Your task to perform on an android device: turn off improve location accuracy Image 0: 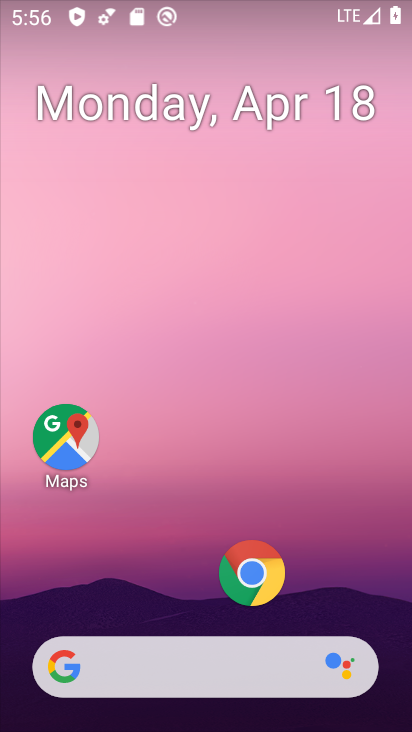
Step 0: drag from (179, 574) to (308, 105)
Your task to perform on an android device: turn off improve location accuracy Image 1: 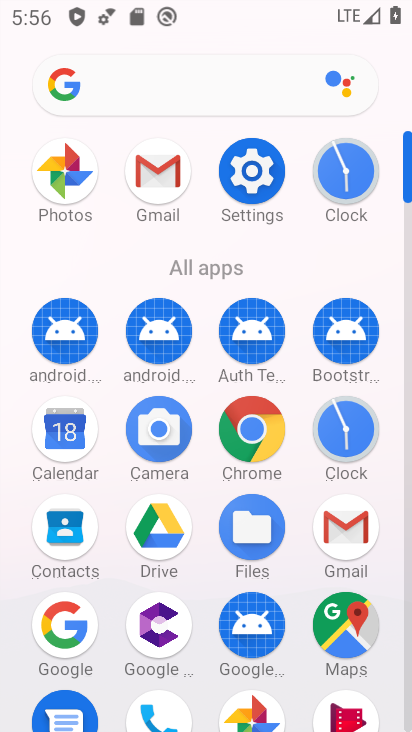
Step 1: click (247, 181)
Your task to perform on an android device: turn off improve location accuracy Image 2: 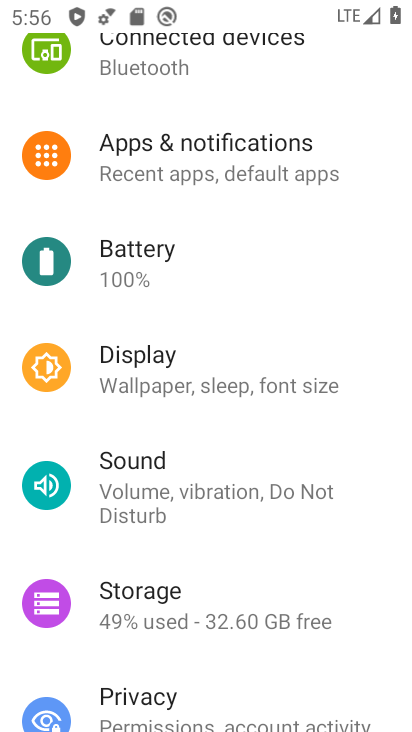
Step 2: drag from (161, 593) to (229, 208)
Your task to perform on an android device: turn off improve location accuracy Image 3: 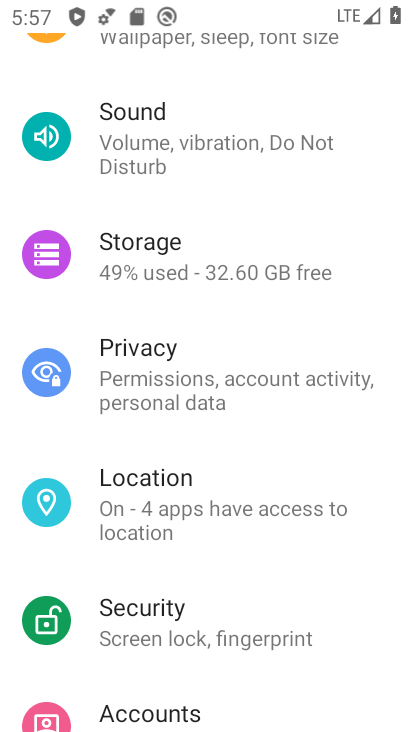
Step 3: click (159, 512)
Your task to perform on an android device: turn off improve location accuracy Image 4: 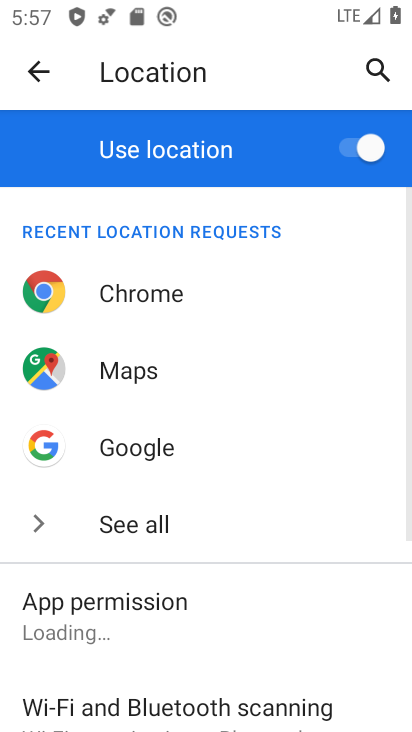
Step 4: drag from (154, 609) to (244, 170)
Your task to perform on an android device: turn off improve location accuracy Image 5: 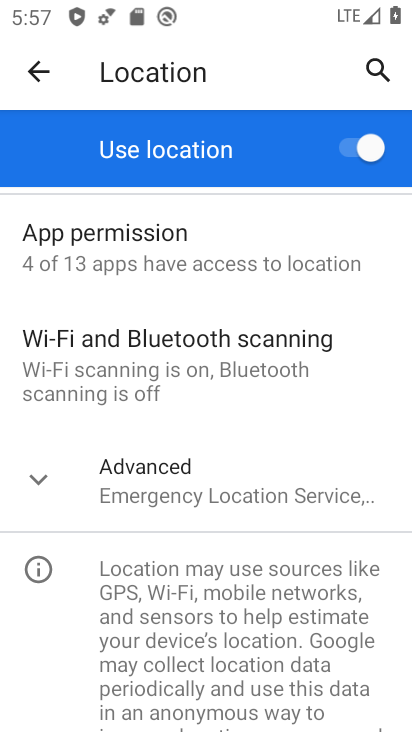
Step 5: click (185, 498)
Your task to perform on an android device: turn off improve location accuracy Image 6: 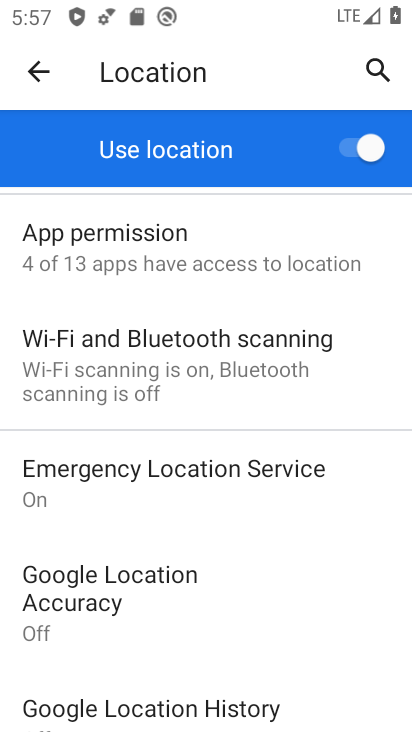
Step 6: click (142, 580)
Your task to perform on an android device: turn off improve location accuracy Image 7: 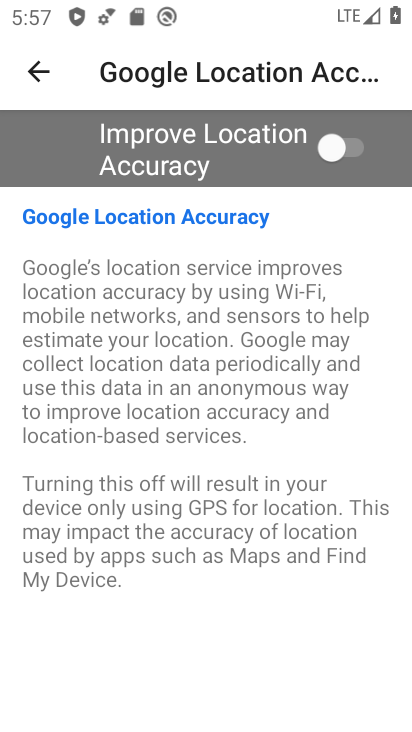
Step 7: task complete